Your task to perform on an android device: Check the weather Image 0: 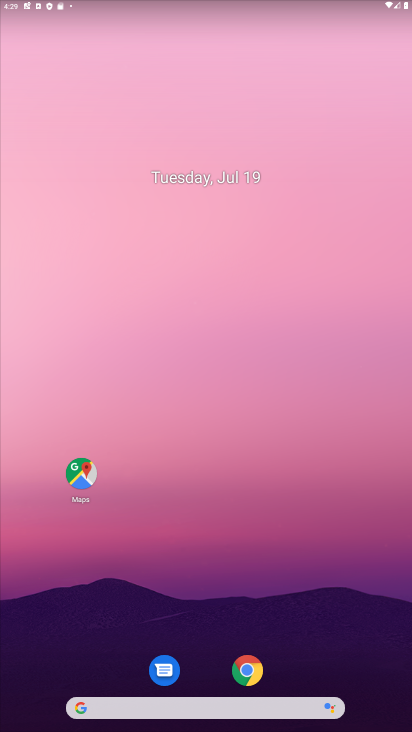
Step 0: drag from (292, 704) to (334, 120)
Your task to perform on an android device: Check the weather Image 1: 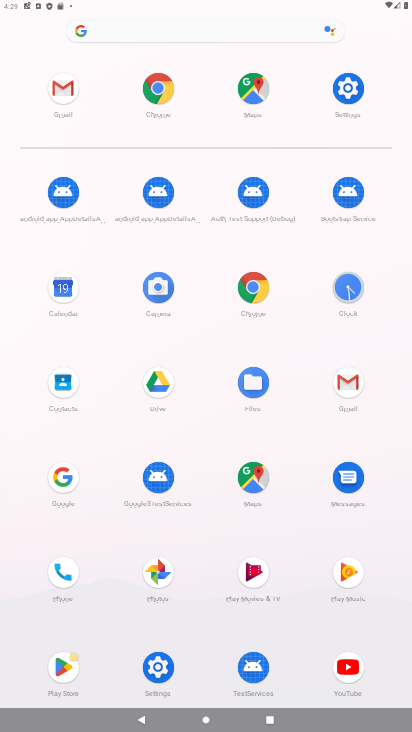
Step 1: click (246, 286)
Your task to perform on an android device: Check the weather Image 2: 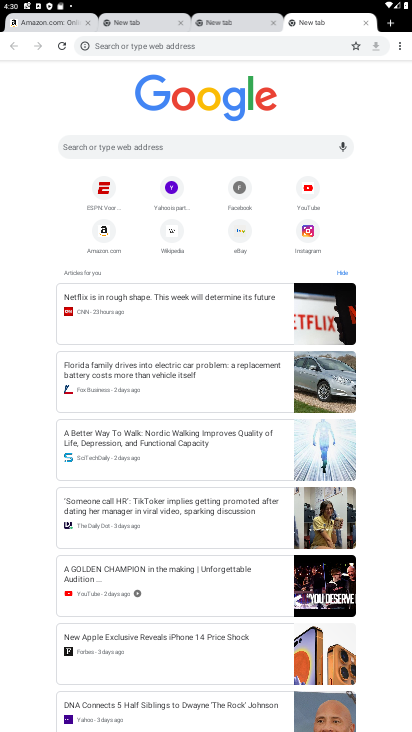
Step 2: click (215, 54)
Your task to perform on an android device: Check the weather Image 3: 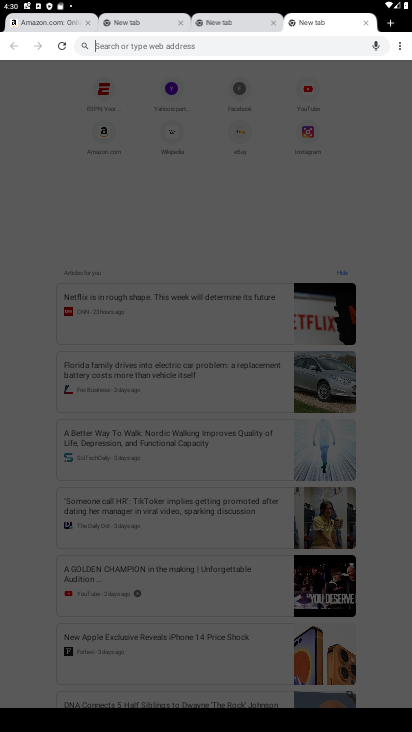
Step 3: type "check the weather"
Your task to perform on an android device: Check the weather Image 4: 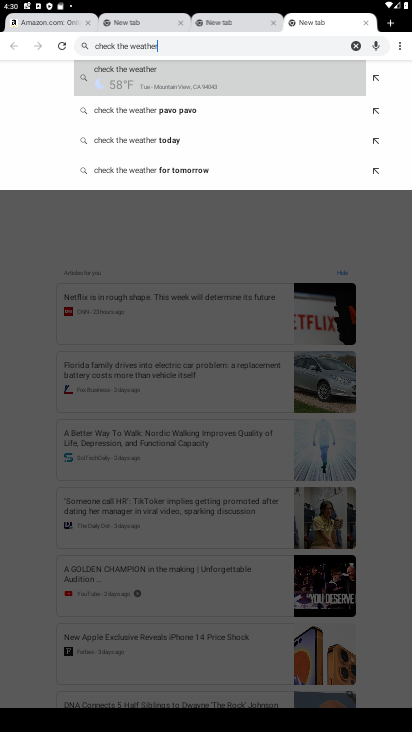
Step 4: click (244, 75)
Your task to perform on an android device: Check the weather Image 5: 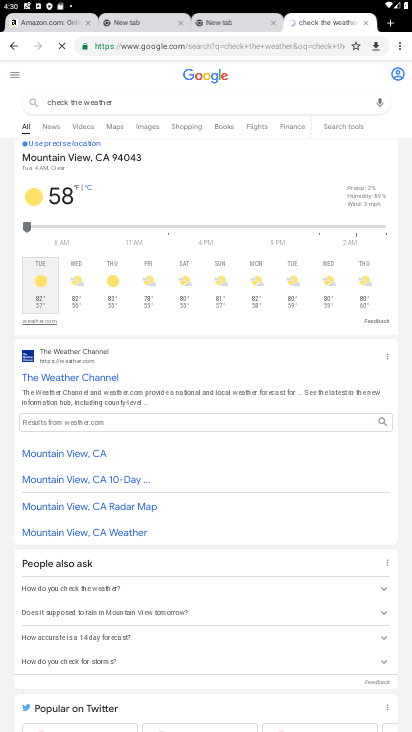
Step 5: task complete